Your task to perform on an android device: check android version Image 0: 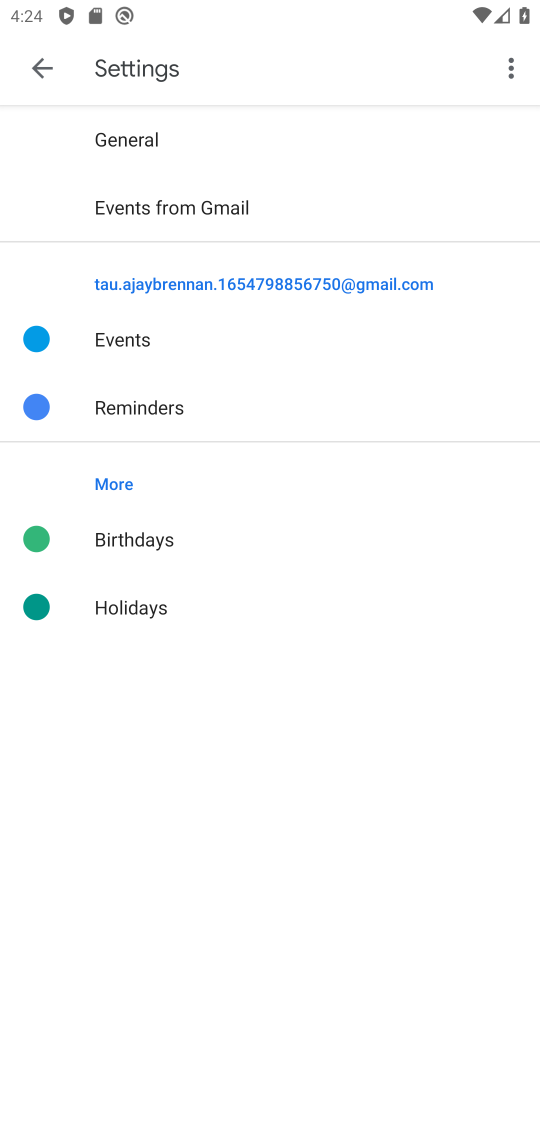
Step 0: press home button
Your task to perform on an android device: check android version Image 1: 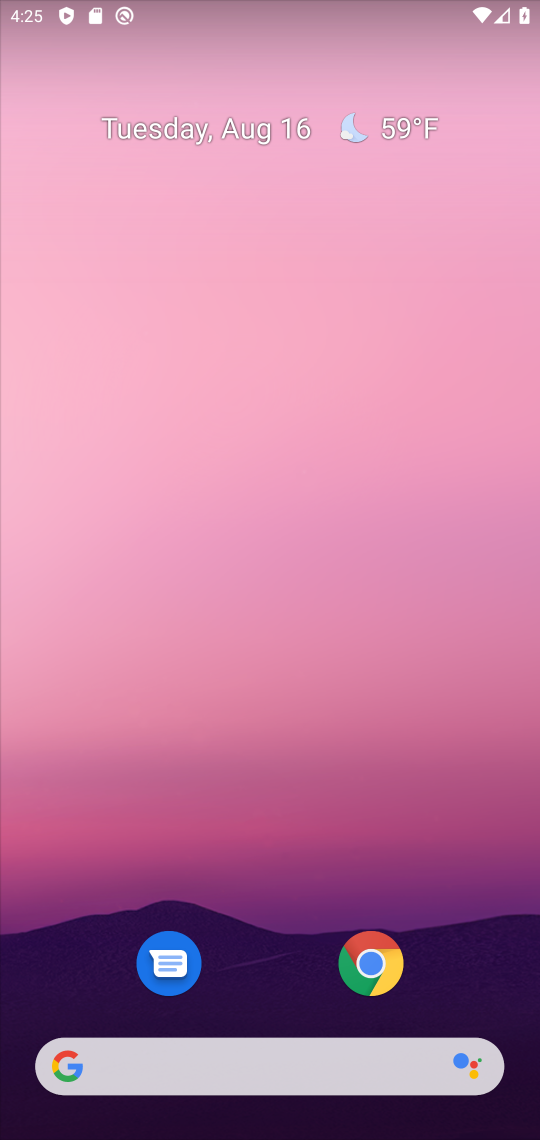
Step 1: drag from (264, 432) to (277, 99)
Your task to perform on an android device: check android version Image 2: 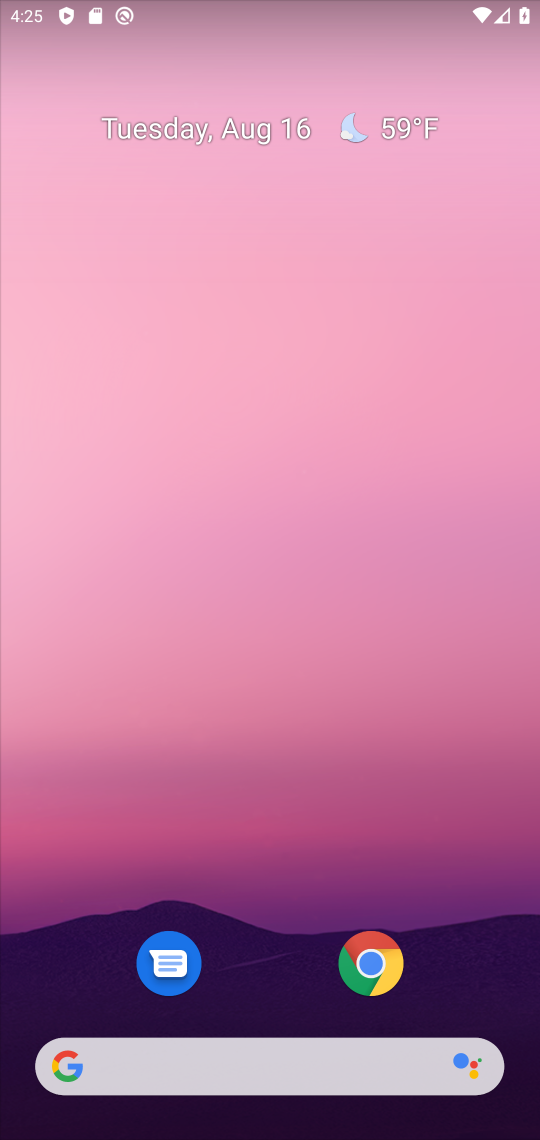
Step 2: drag from (219, 952) to (225, 4)
Your task to perform on an android device: check android version Image 3: 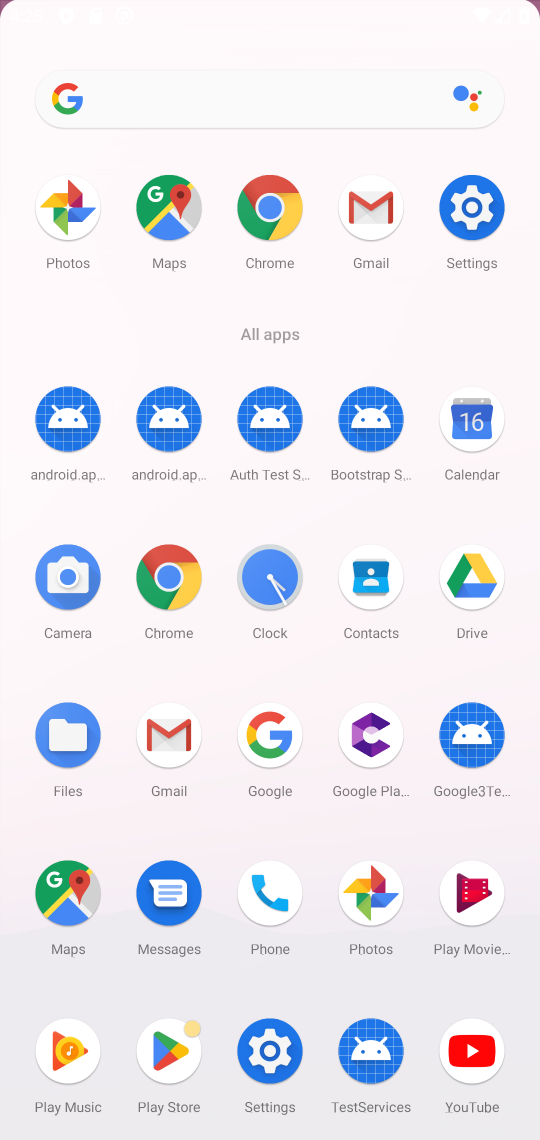
Step 3: click (465, 250)
Your task to perform on an android device: check android version Image 4: 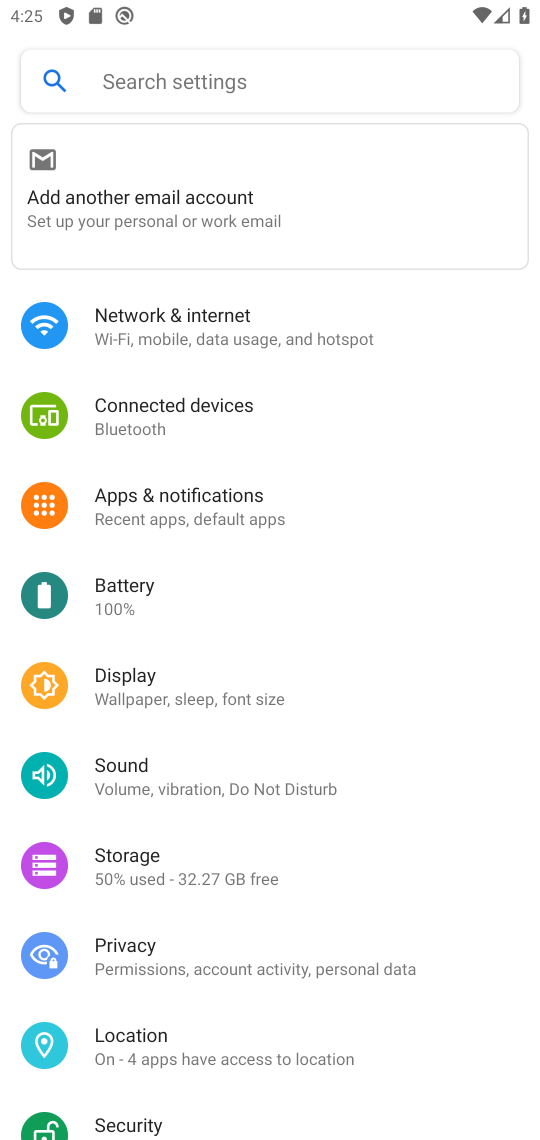
Step 4: drag from (265, 1005) to (390, 49)
Your task to perform on an android device: check android version Image 5: 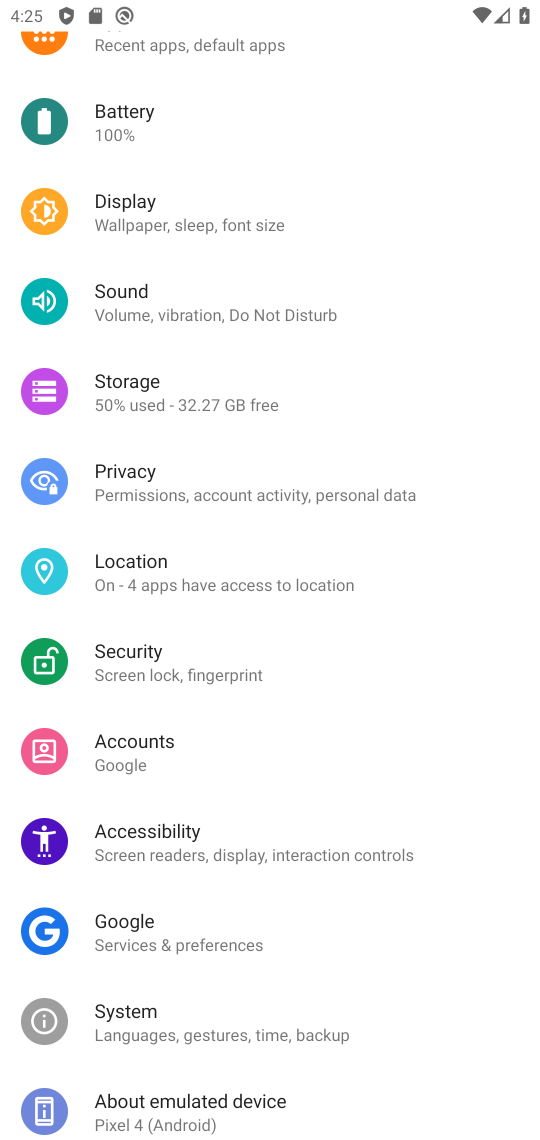
Step 5: click (142, 1087)
Your task to perform on an android device: check android version Image 6: 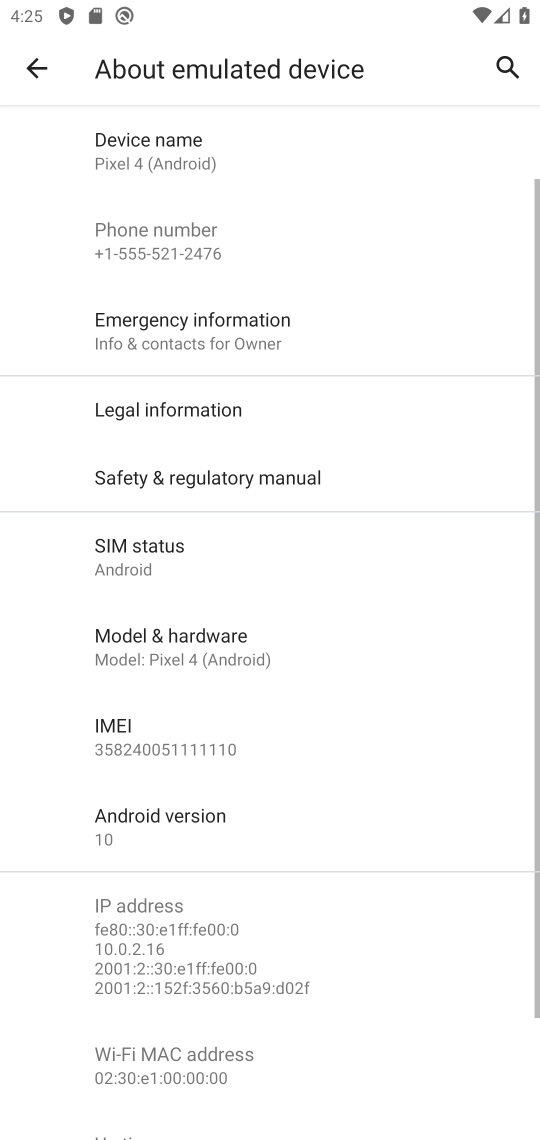
Step 6: task complete